Your task to perform on an android device: turn on the 12-hour format for clock Image 0: 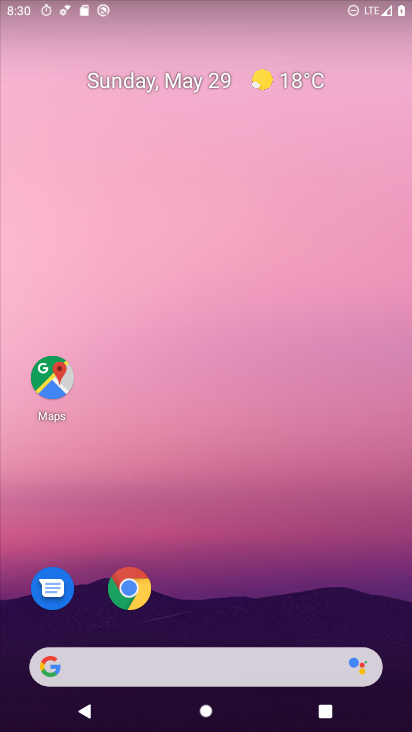
Step 0: drag from (244, 596) to (258, 124)
Your task to perform on an android device: turn on the 12-hour format for clock Image 1: 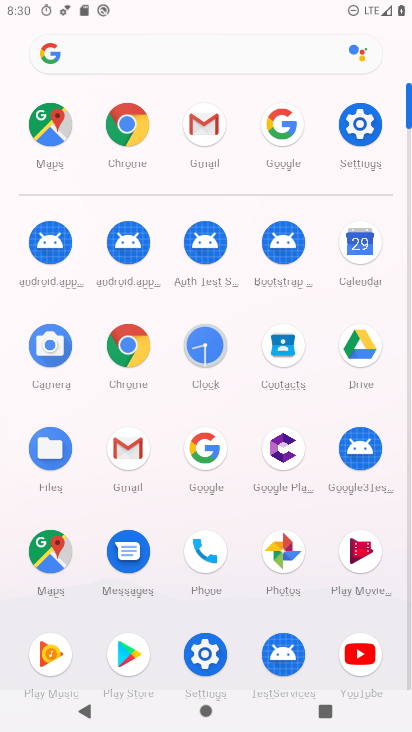
Step 1: click (218, 336)
Your task to perform on an android device: turn on the 12-hour format for clock Image 2: 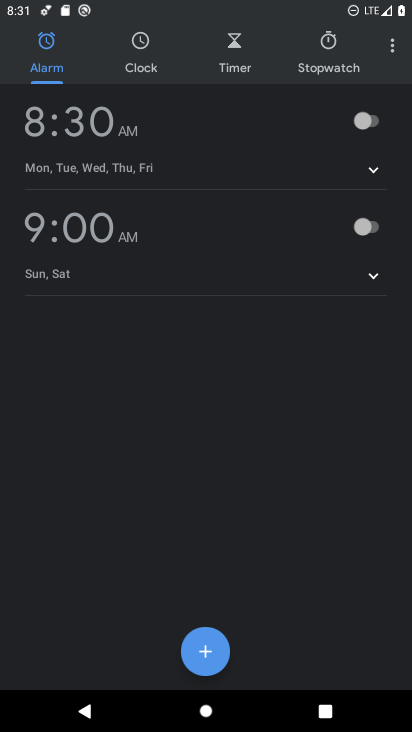
Step 2: click (401, 34)
Your task to perform on an android device: turn on the 12-hour format for clock Image 3: 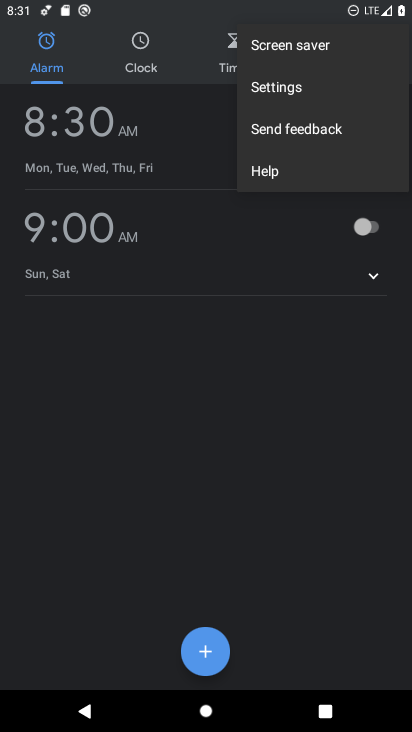
Step 3: click (271, 87)
Your task to perform on an android device: turn on the 12-hour format for clock Image 4: 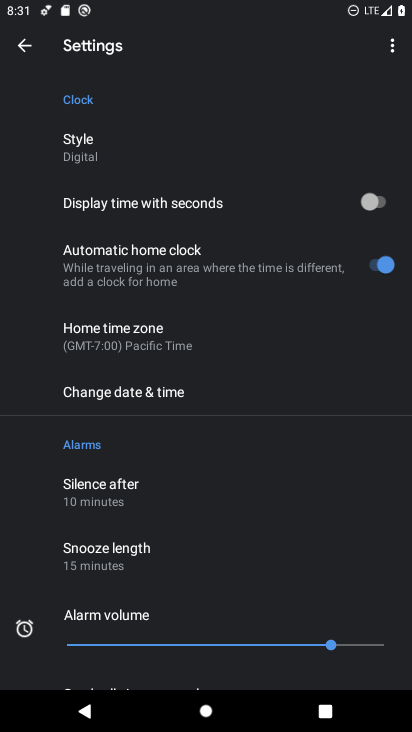
Step 4: drag from (200, 514) to (250, 147)
Your task to perform on an android device: turn on the 12-hour format for clock Image 5: 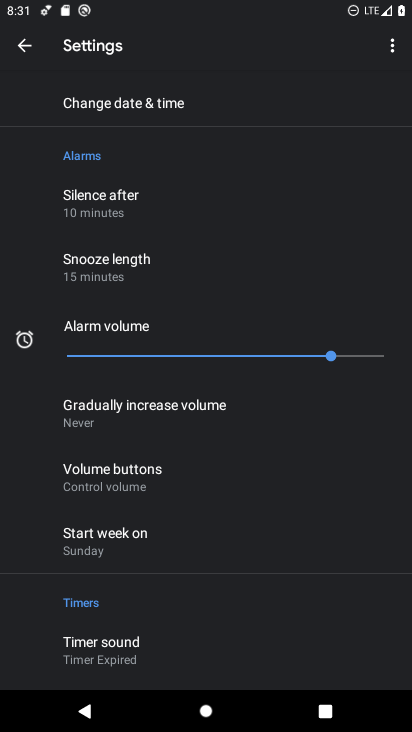
Step 5: click (159, 94)
Your task to perform on an android device: turn on the 12-hour format for clock Image 6: 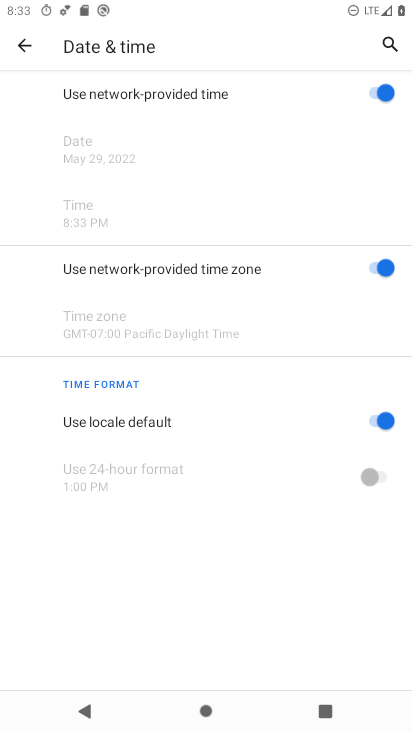
Step 6: task complete